Your task to perform on an android device: View the shopping cart on walmart.com. Image 0: 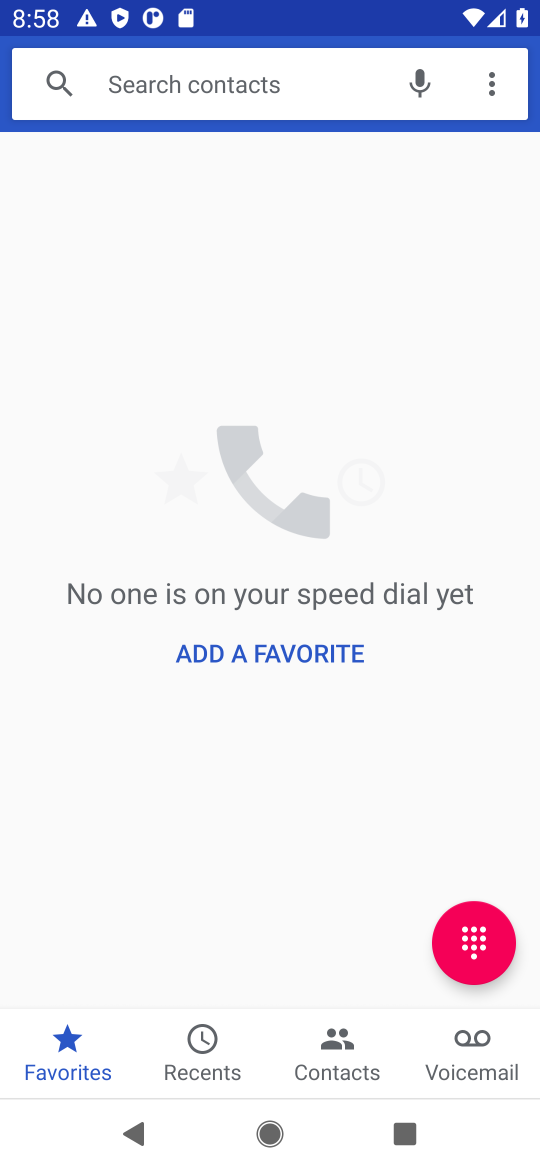
Step 0: press home button
Your task to perform on an android device: View the shopping cart on walmart.com. Image 1: 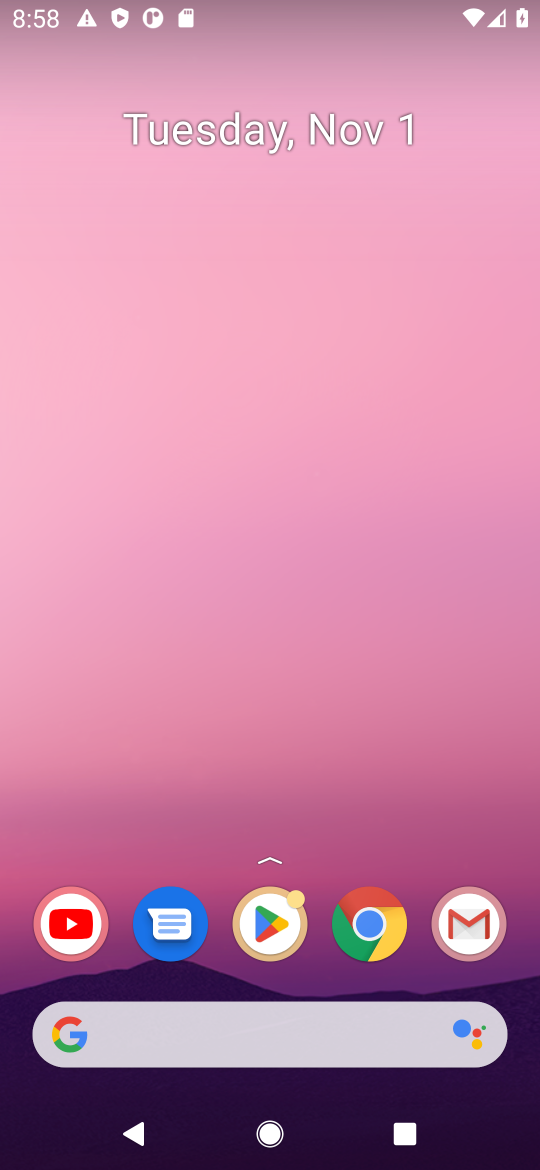
Step 1: click (374, 921)
Your task to perform on an android device: View the shopping cart on walmart.com. Image 2: 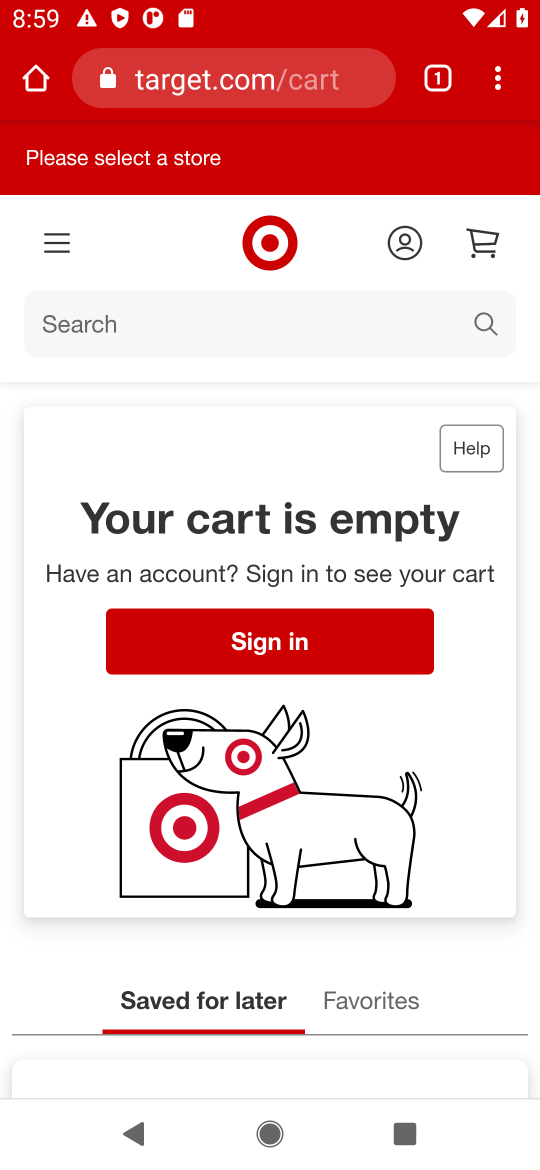
Step 2: click (265, 73)
Your task to perform on an android device: View the shopping cart on walmart.com. Image 3: 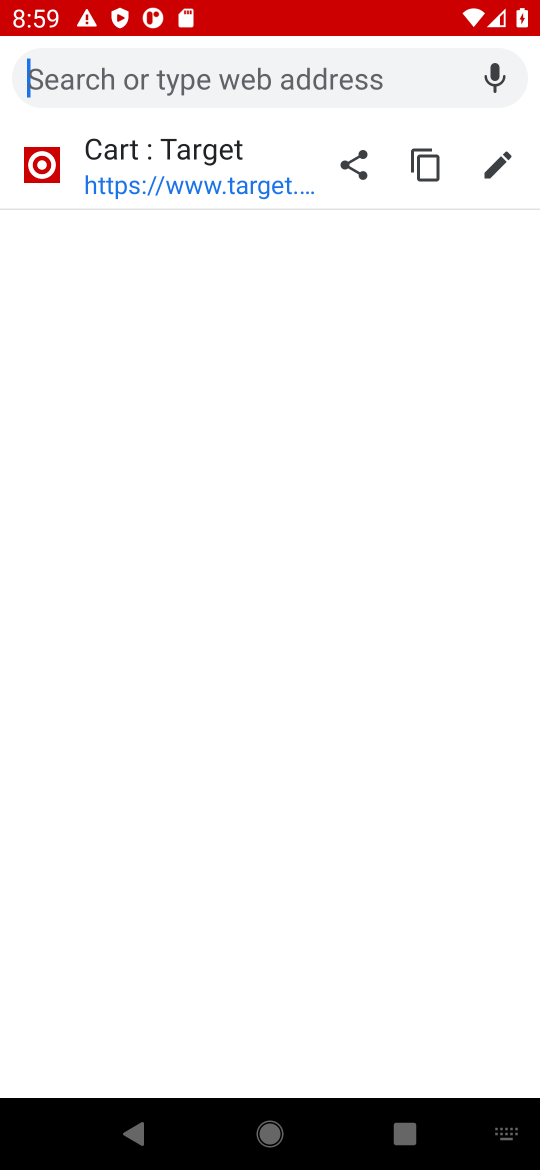
Step 3: type "walmart"
Your task to perform on an android device: View the shopping cart on walmart.com. Image 4: 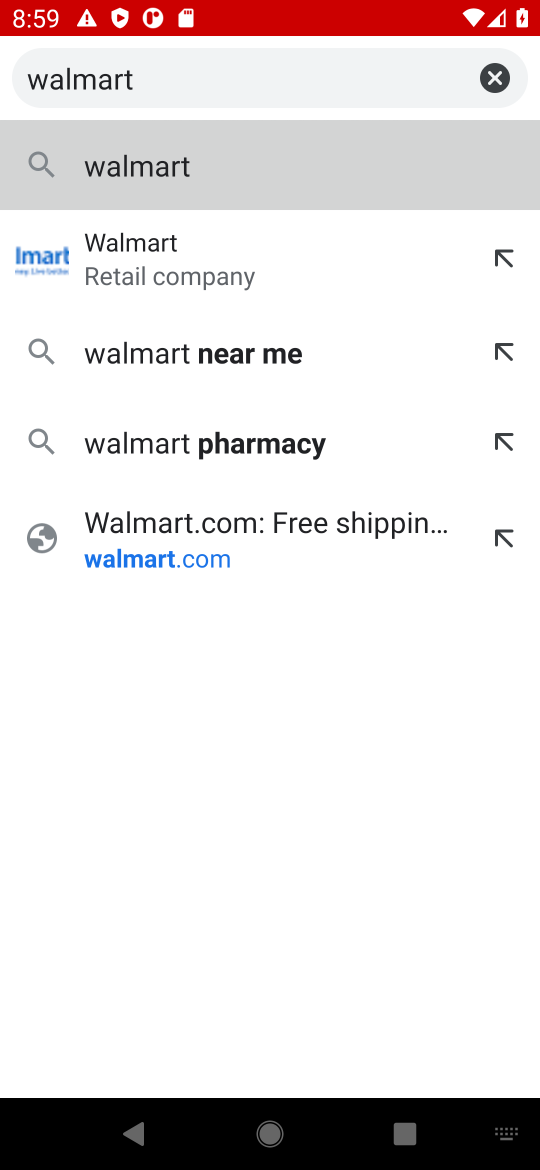
Step 4: click (214, 177)
Your task to perform on an android device: View the shopping cart on walmart.com. Image 5: 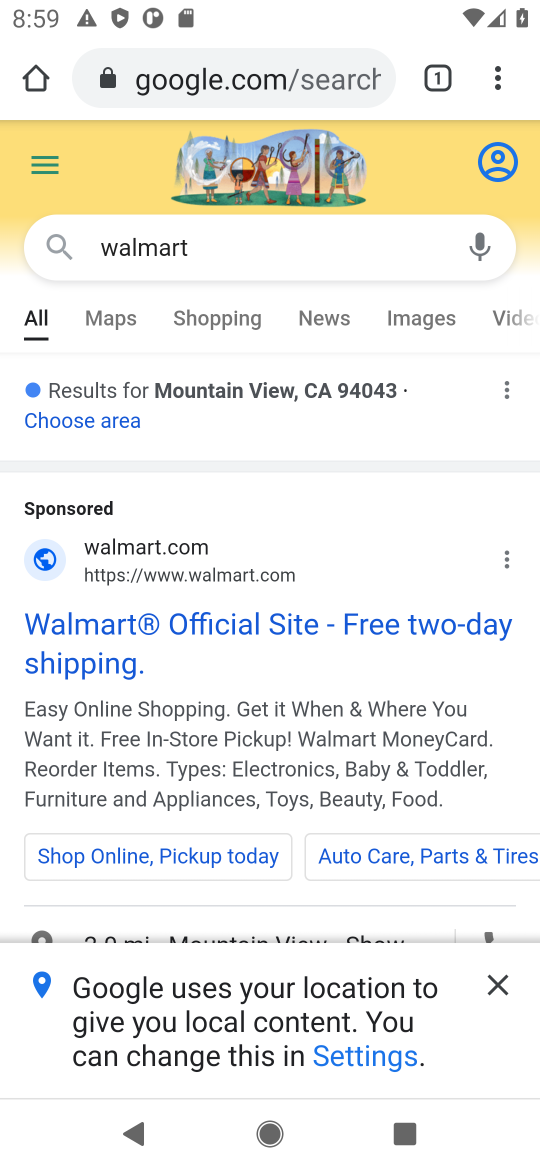
Step 5: drag from (303, 688) to (294, 326)
Your task to perform on an android device: View the shopping cart on walmart.com. Image 6: 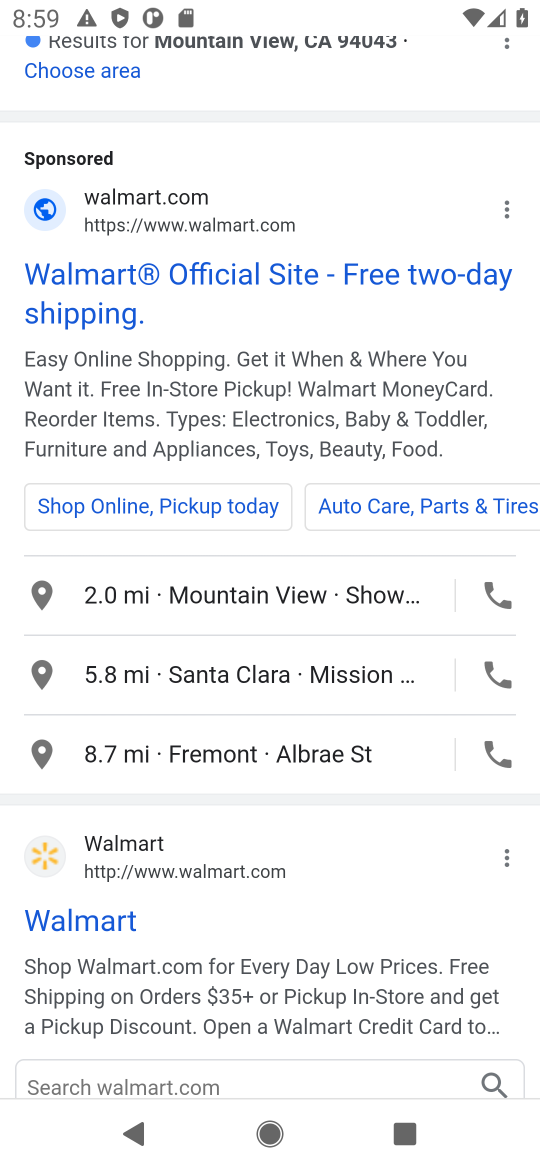
Step 6: click (79, 922)
Your task to perform on an android device: View the shopping cart on walmart.com. Image 7: 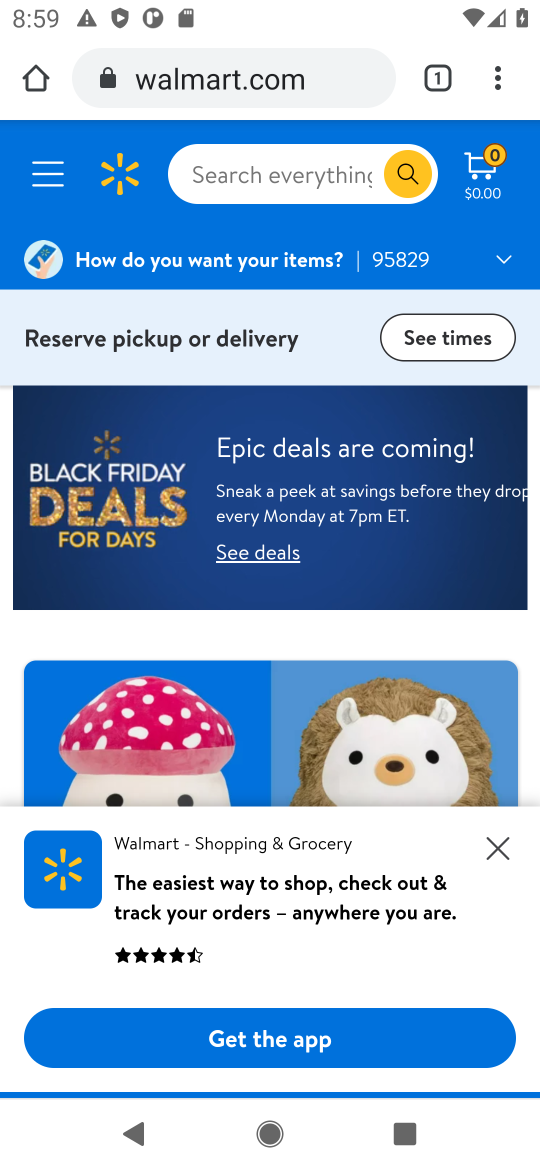
Step 7: click (489, 173)
Your task to perform on an android device: View the shopping cart on walmart.com. Image 8: 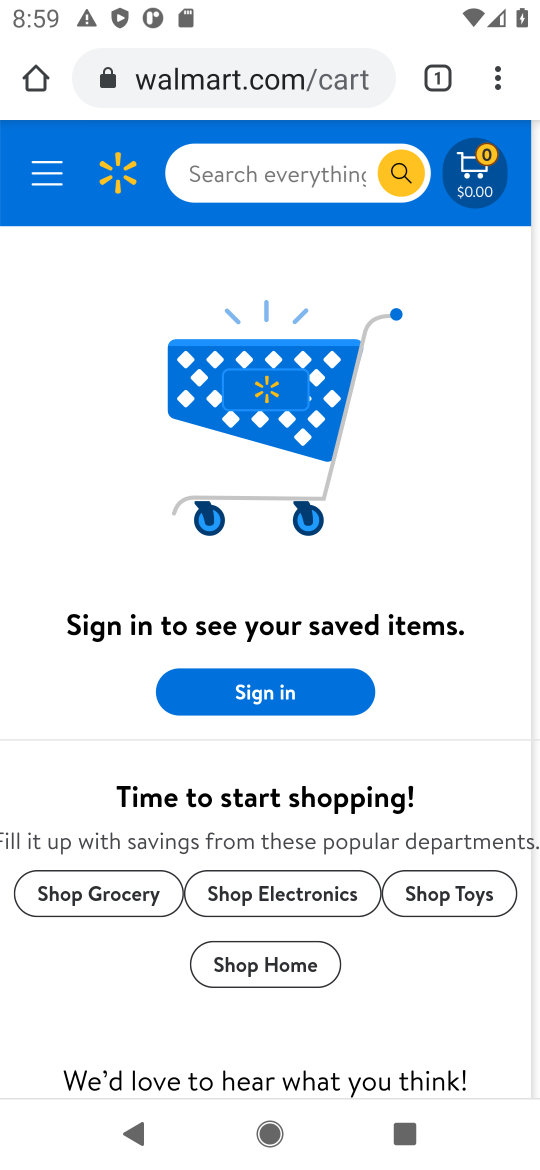
Step 8: click (488, 179)
Your task to perform on an android device: View the shopping cart on walmart.com. Image 9: 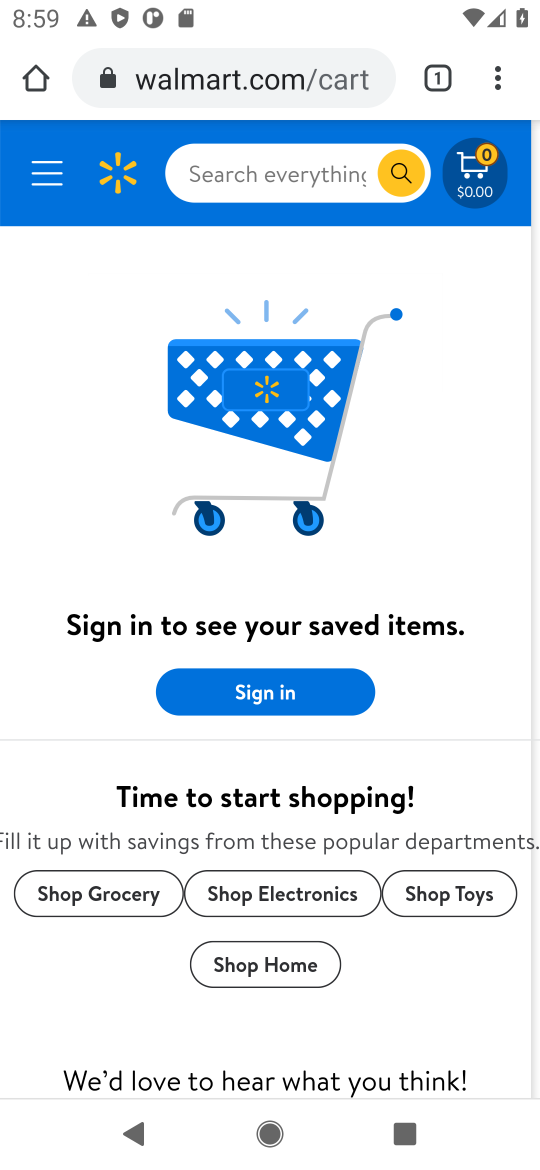
Step 9: task complete